Your task to perform on an android device: change notifications settings Image 0: 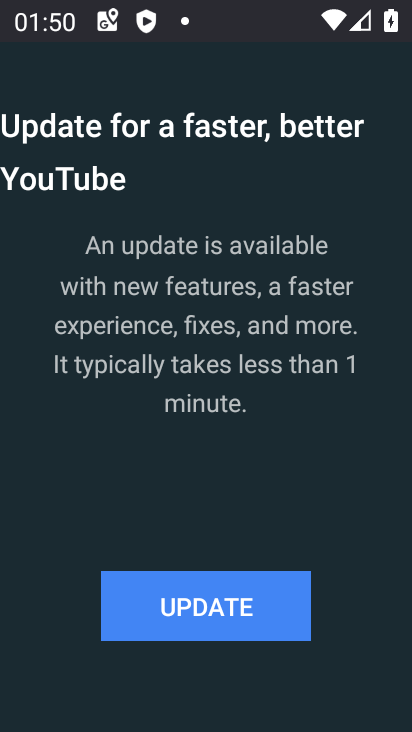
Step 0: press home button
Your task to perform on an android device: change notifications settings Image 1: 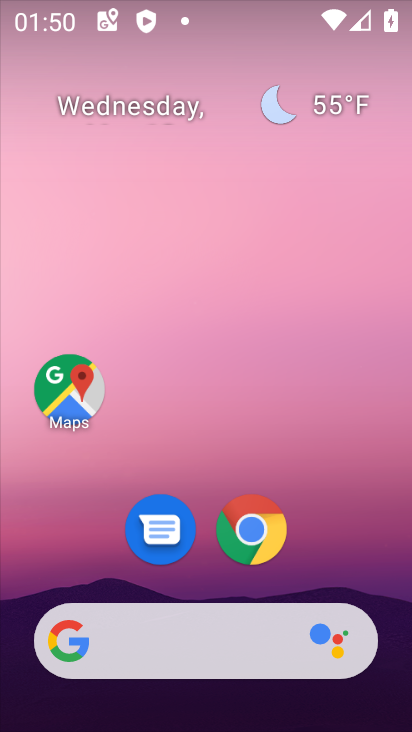
Step 1: drag from (216, 723) to (214, 225)
Your task to perform on an android device: change notifications settings Image 2: 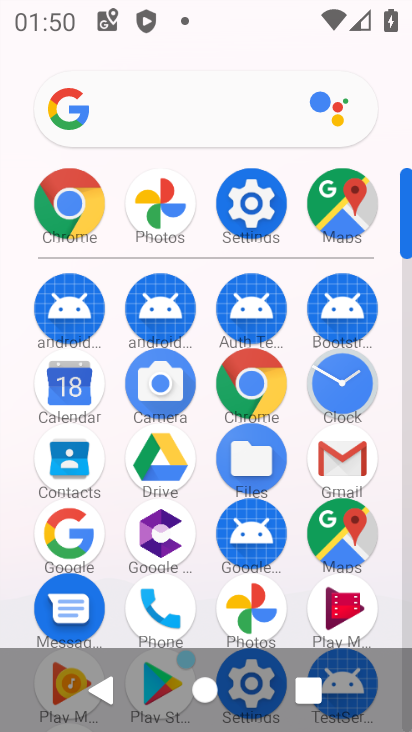
Step 2: click (259, 200)
Your task to perform on an android device: change notifications settings Image 3: 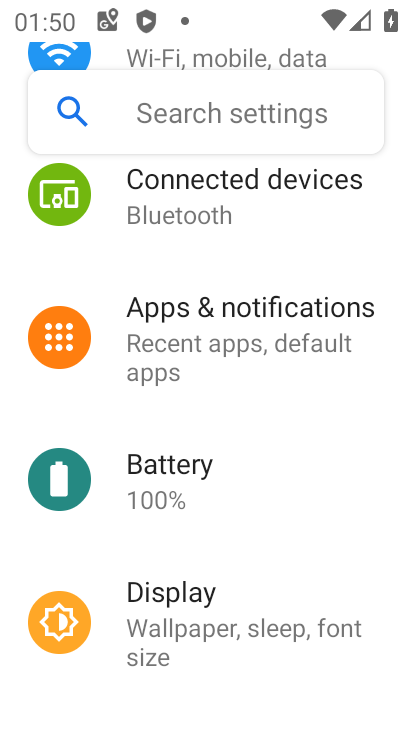
Step 3: click (216, 320)
Your task to perform on an android device: change notifications settings Image 4: 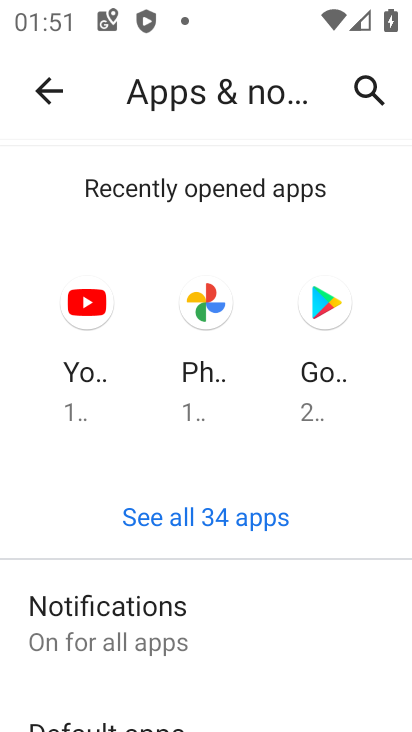
Step 4: drag from (168, 650) to (175, 334)
Your task to perform on an android device: change notifications settings Image 5: 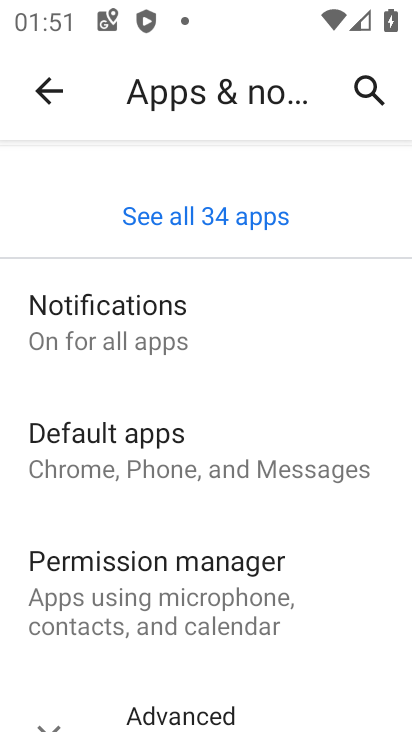
Step 5: click (108, 325)
Your task to perform on an android device: change notifications settings Image 6: 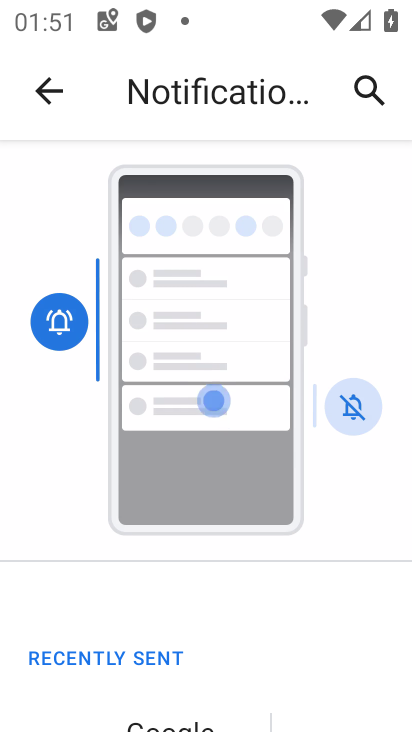
Step 6: drag from (216, 693) to (233, 328)
Your task to perform on an android device: change notifications settings Image 7: 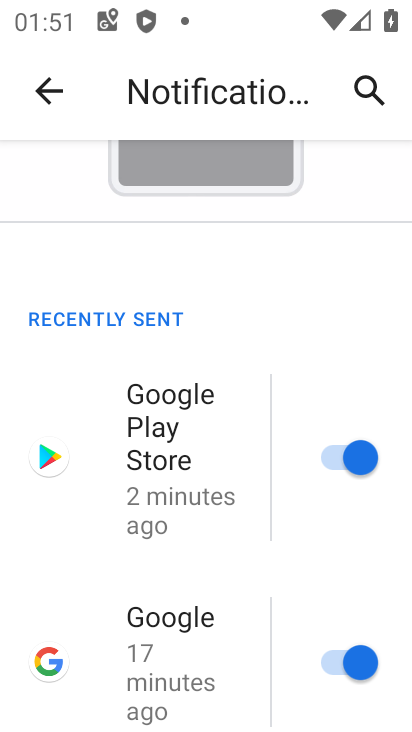
Step 7: drag from (181, 676) to (192, 324)
Your task to perform on an android device: change notifications settings Image 8: 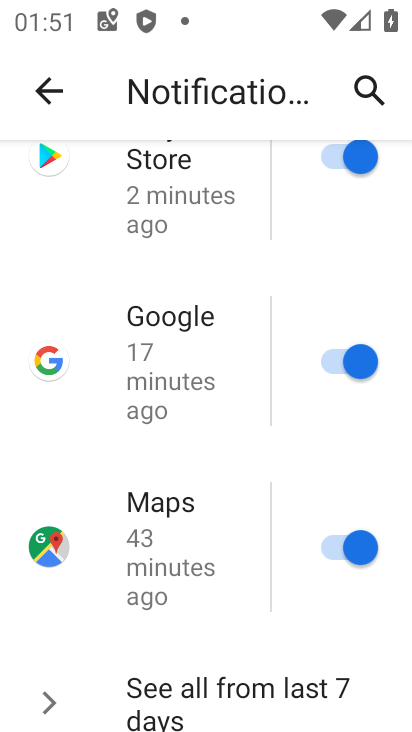
Step 8: drag from (210, 680) to (212, 402)
Your task to perform on an android device: change notifications settings Image 9: 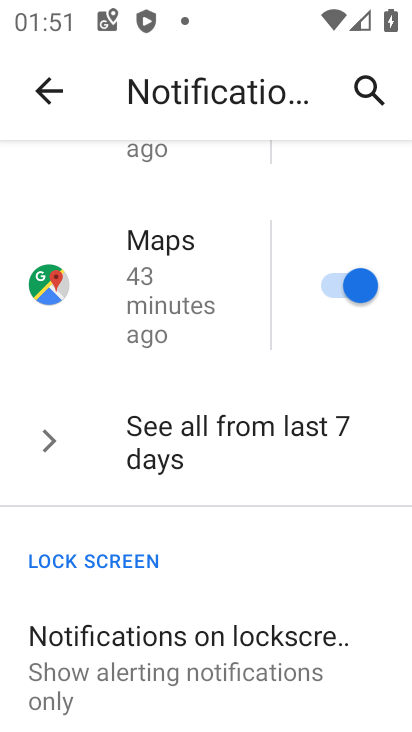
Step 9: drag from (207, 665) to (196, 285)
Your task to perform on an android device: change notifications settings Image 10: 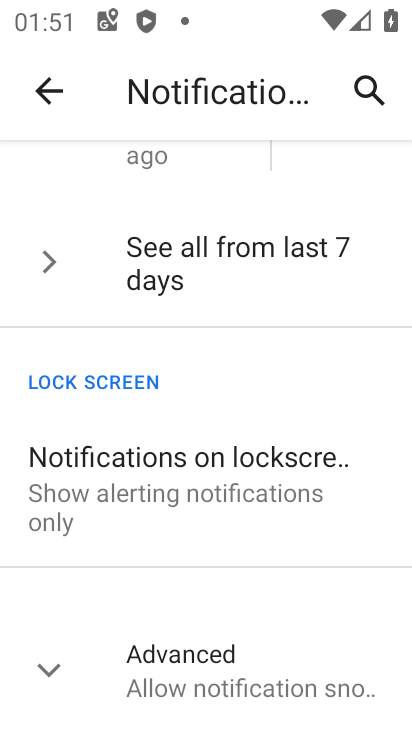
Step 10: click (148, 665)
Your task to perform on an android device: change notifications settings Image 11: 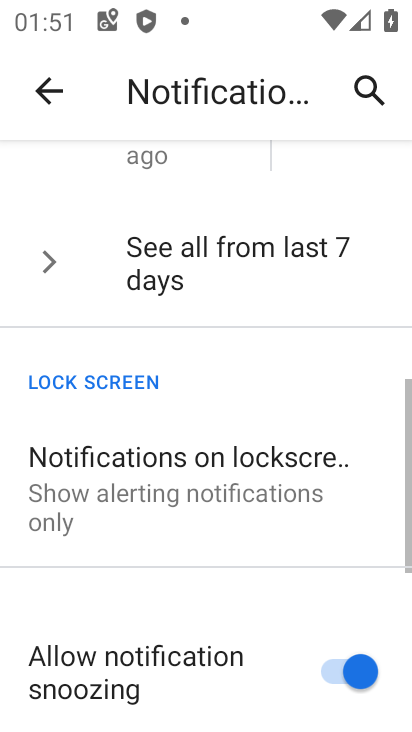
Step 11: drag from (204, 685) to (209, 359)
Your task to perform on an android device: change notifications settings Image 12: 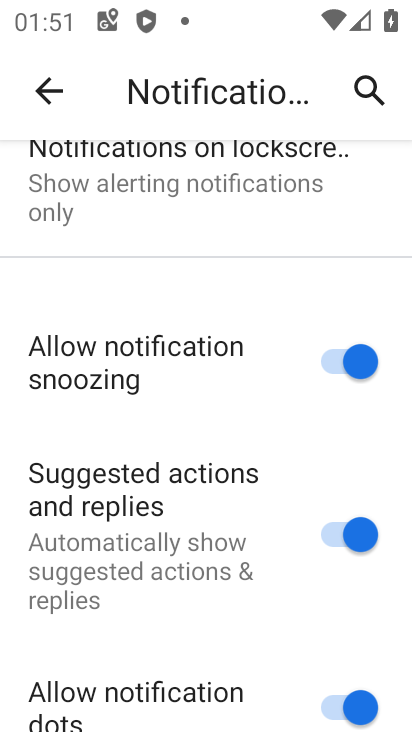
Step 12: click (333, 361)
Your task to perform on an android device: change notifications settings Image 13: 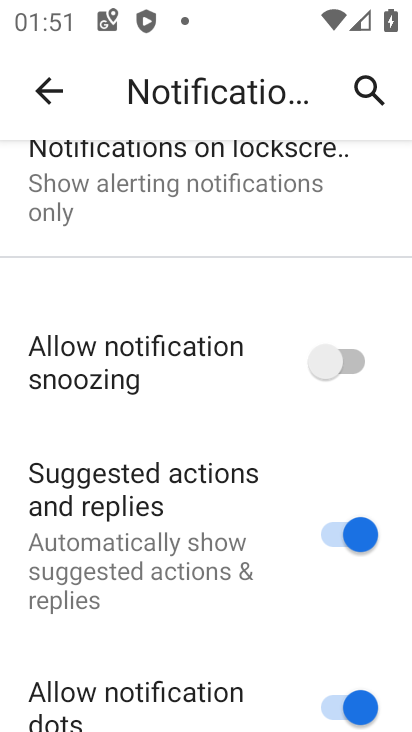
Step 13: click (336, 535)
Your task to perform on an android device: change notifications settings Image 14: 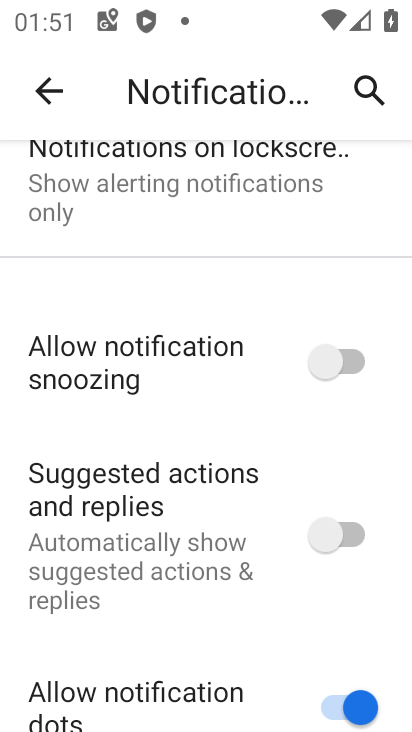
Step 14: task complete